Your task to perform on an android device: Open Reddit.com Image 0: 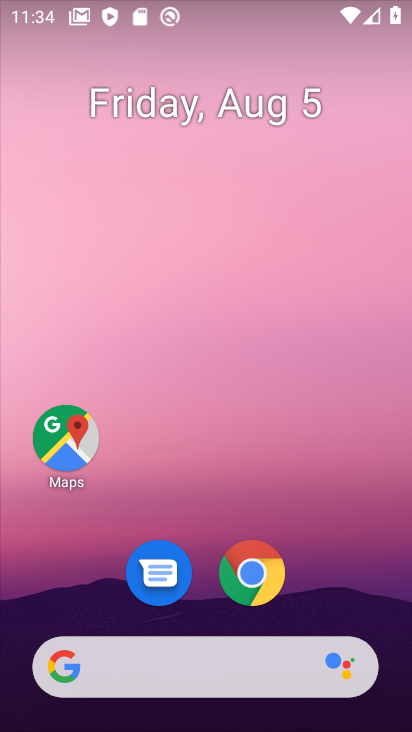
Step 0: click (134, 670)
Your task to perform on an android device: Open Reddit.com Image 1: 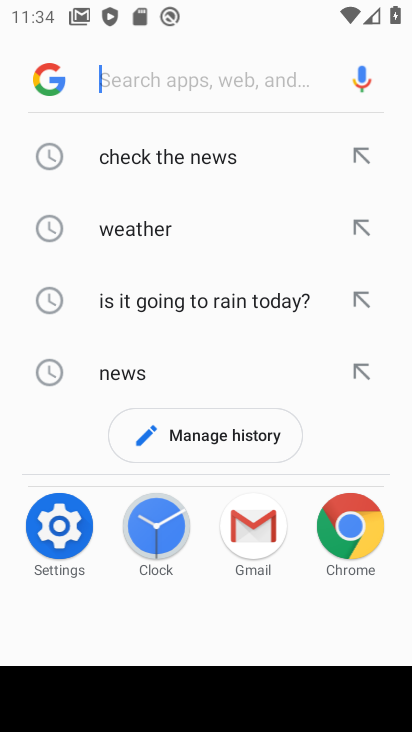
Step 1: type "Reddit.com"
Your task to perform on an android device: Open Reddit.com Image 2: 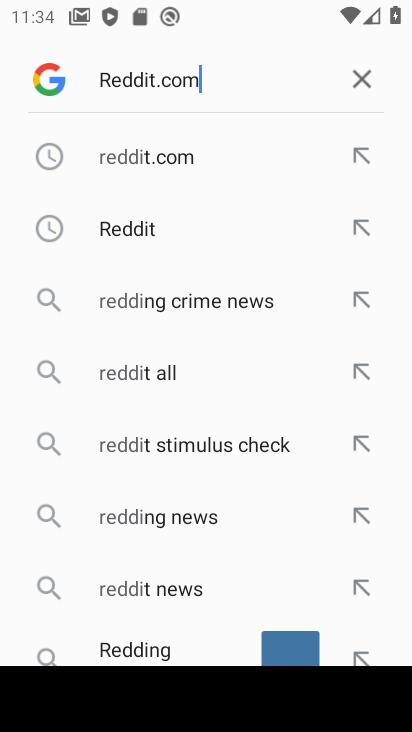
Step 2: press enter
Your task to perform on an android device: Open Reddit.com Image 3: 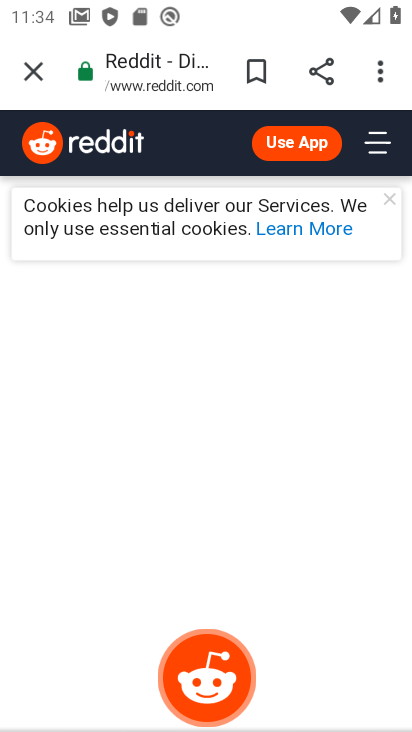
Step 3: task complete